Your task to perform on an android device: Open Maps and search for coffee Image 0: 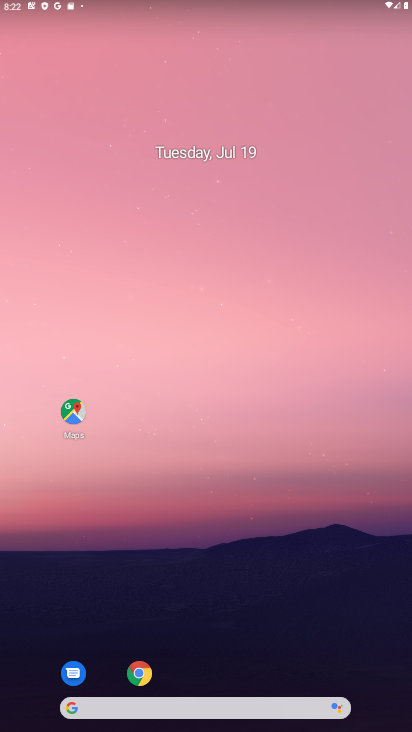
Step 0: click (144, 675)
Your task to perform on an android device: Open Maps and search for coffee Image 1: 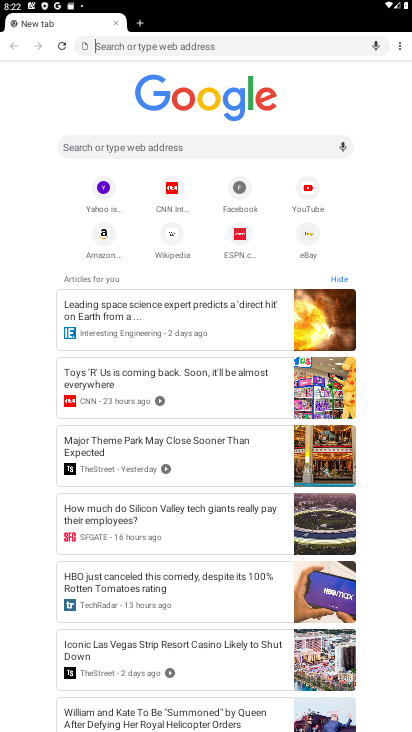
Step 1: press home button
Your task to perform on an android device: Open Maps and search for coffee Image 2: 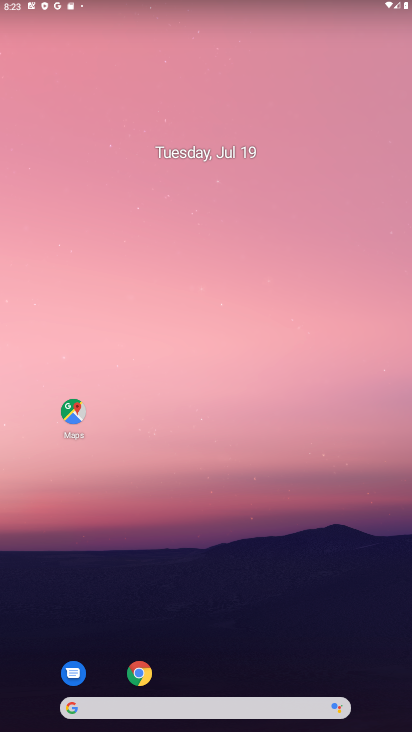
Step 2: click (73, 407)
Your task to perform on an android device: Open Maps and search for coffee Image 3: 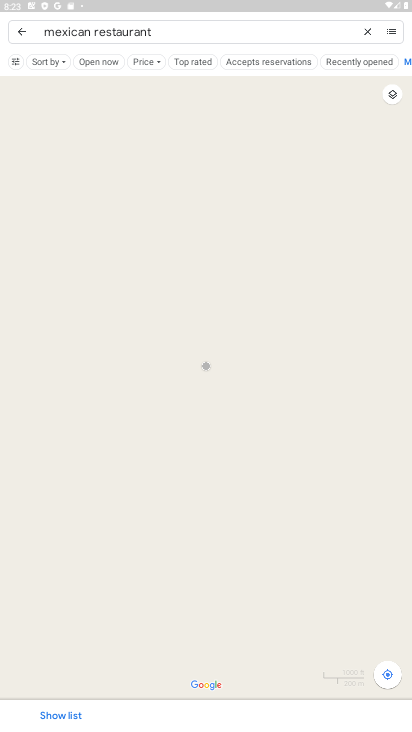
Step 3: click (204, 33)
Your task to perform on an android device: Open Maps and search for coffee Image 4: 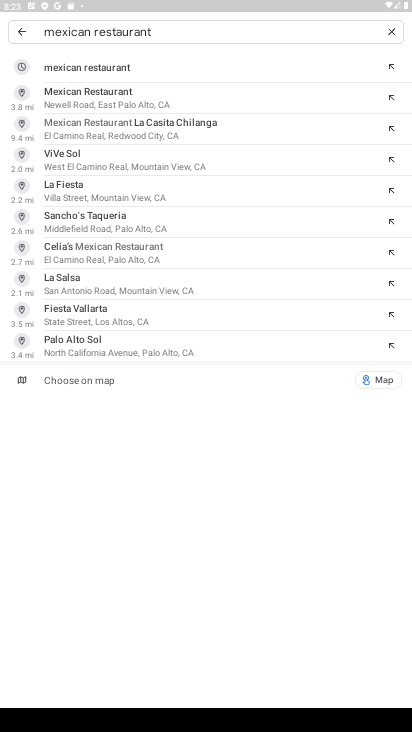
Step 4: click (390, 37)
Your task to perform on an android device: Open Maps and search for coffee Image 5: 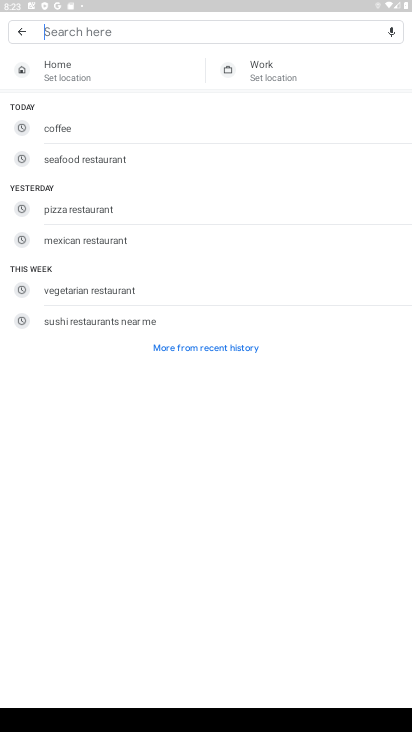
Step 5: click (164, 127)
Your task to perform on an android device: Open Maps and search for coffee Image 6: 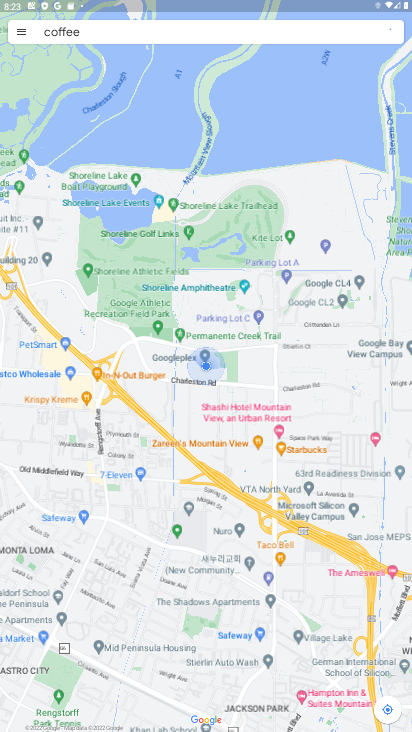
Step 6: task complete